Your task to perform on an android device: turn pop-ups on in chrome Image 0: 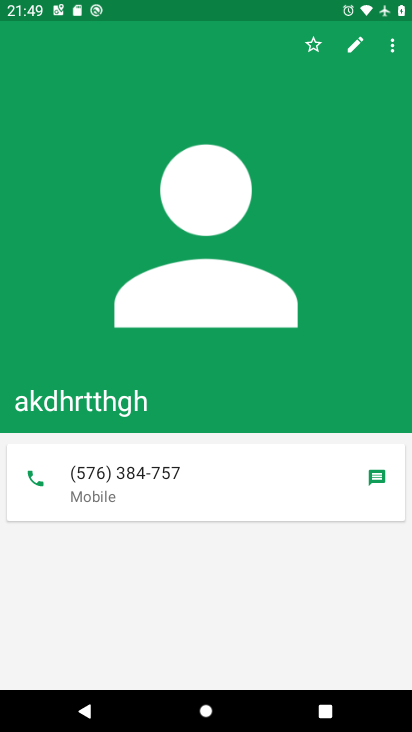
Step 0: press home button
Your task to perform on an android device: turn pop-ups on in chrome Image 1: 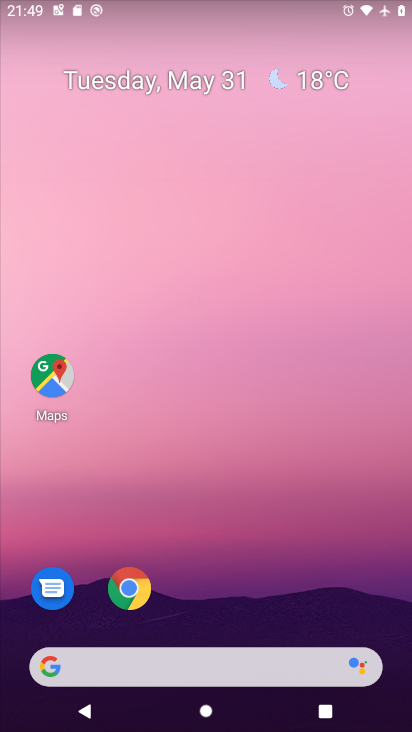
Step 1: drag from (167, 667) to (330, 177)
Your task to perform on an android device: turn pop-ups on in chrome Image 2: 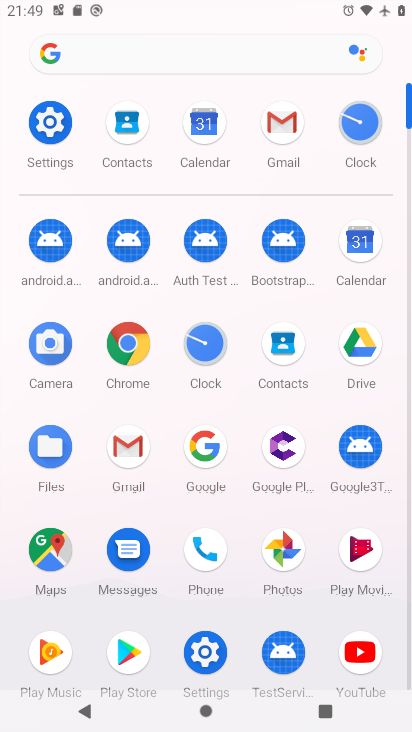
Step 2: click (121, 342)
Your task to perform on an android device: turn pop-ups on in chrome Image 3: 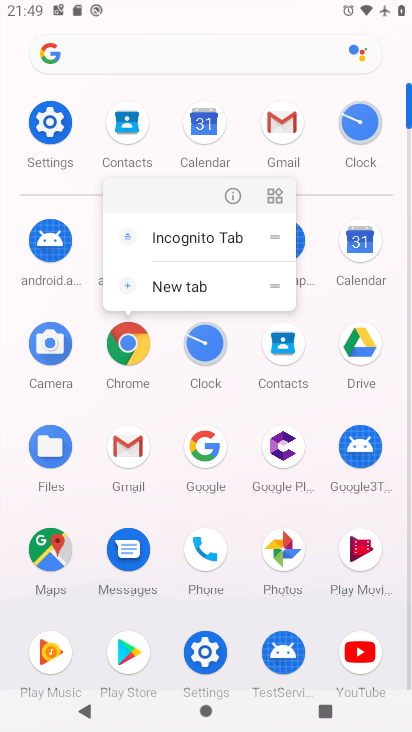
Step 3: click (128, 345)
Your task to perform on an android device: turn pop-ups on in chrome Image 4: 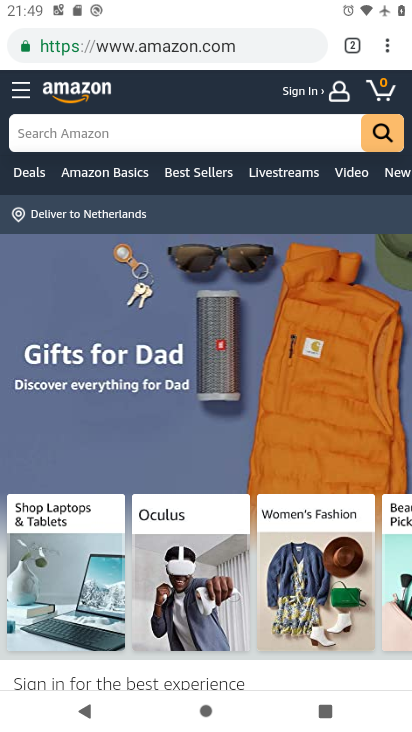
Step 4: drag from (386, 55) to (277, 544)
Your task to perform on an android device: turn pop-ups on in chrome Image 5: 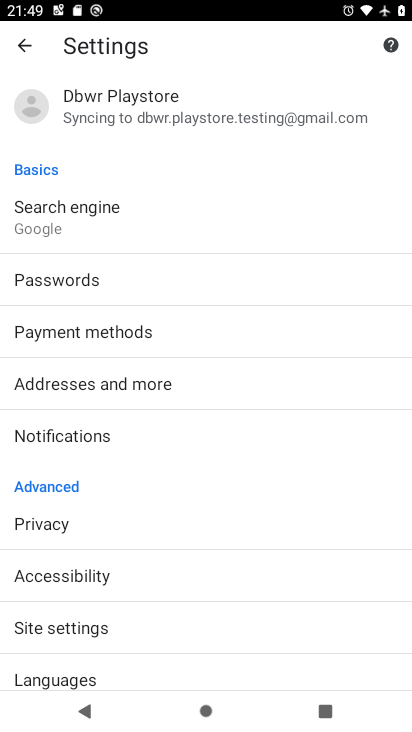
Step 5: click (89, 627)
Your task to perform on an android device: turn pop-ups on in chrome Image 6: 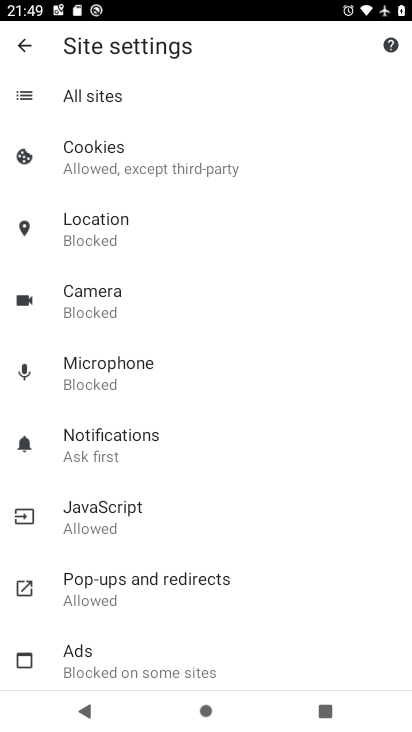
Step 6: click (138, 570)
Your task to perform on an android device: turn pop-ups on in chrome Image 7: 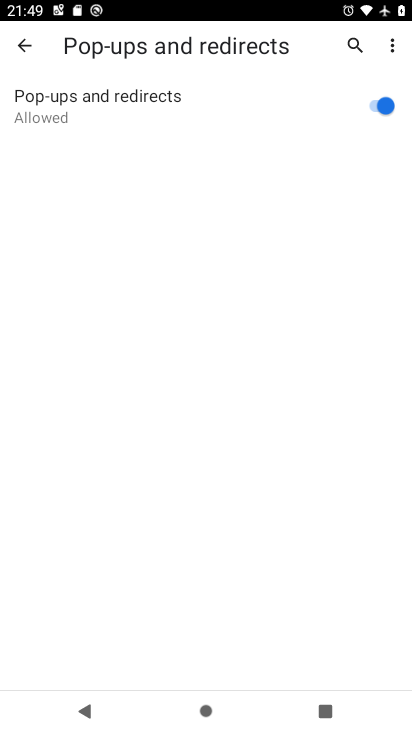
Step 7: task complete